Your task to perform on an android device: Search for pizza restaurants on Maps Image 0: 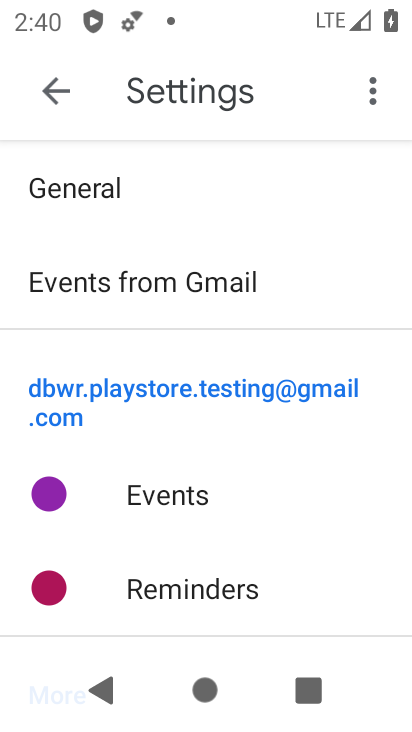
Step 0: press home button
Your task to perform on an android device: Search for pizza restaurants on Maps Image 1: 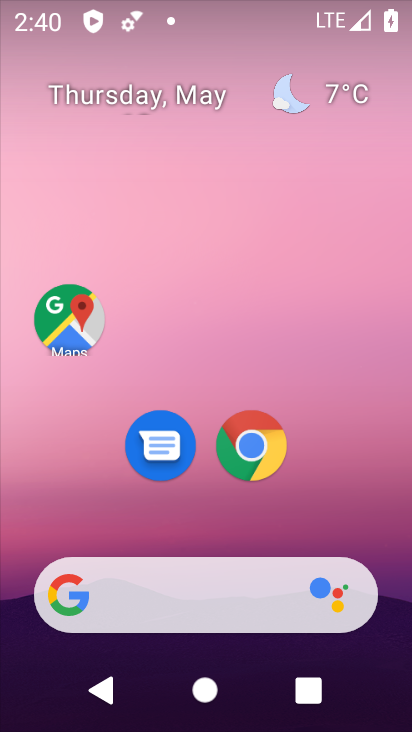
Step 1: click (72, 328)
Your task to perform on an android device: Search for pizza restaurants on Maps Image 2: 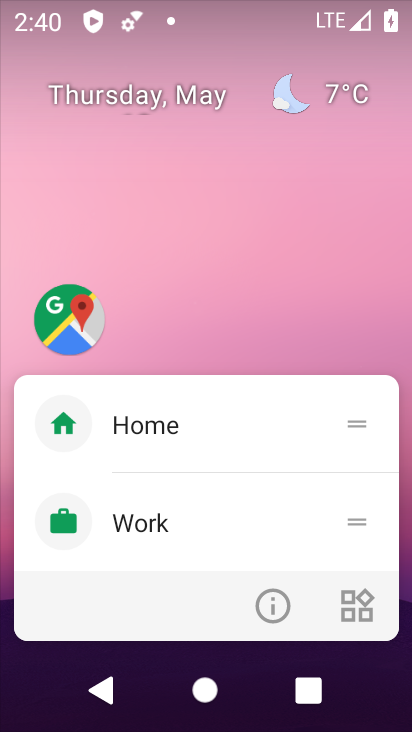
Step 2: click (67, 326)
Your task to perform on an android device: Search for pizza restaurants on Maps Image 3: 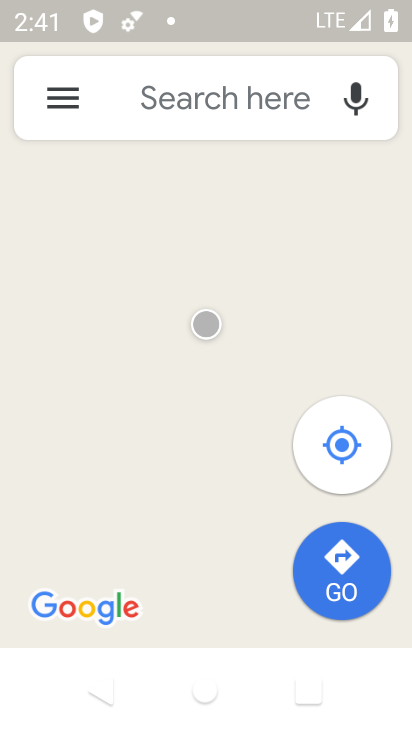
Step 3: click (145, 100)
Your task to perform on an android device: Search for pizza restaurants on Maps Image 4: 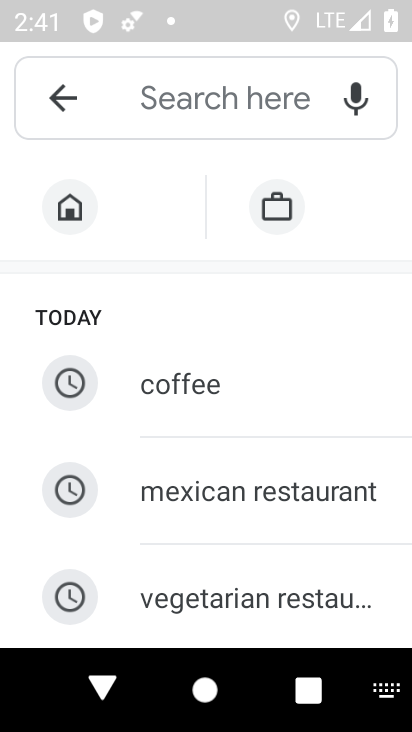
Step 4: type "pizza restaurant"
Your task to perform on an android device: Search for pizza restaurants on Maps Image 5: 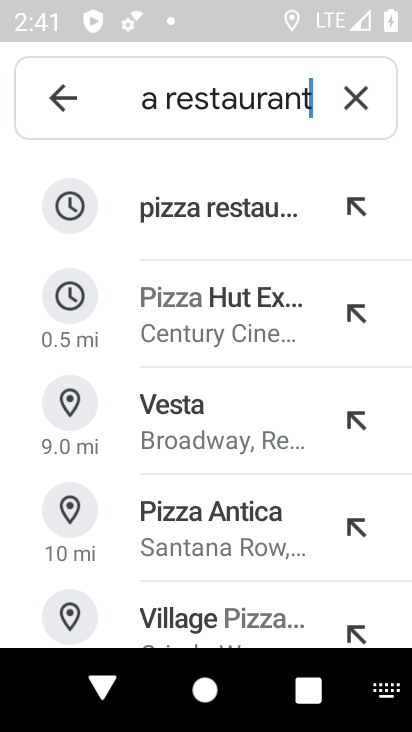
Step 5: click (209, 209)
Your task to perform on an android device: Search for pizza restaurants on Maps Image 6: 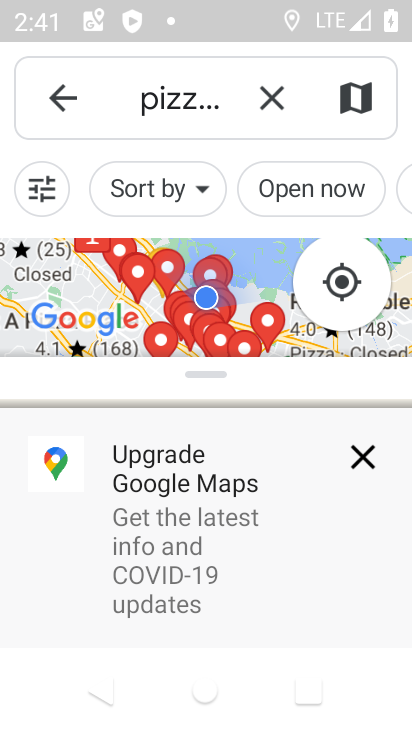
Step 6: click (368, 458)
Your task to perform on an android device: Search for pizza restaurants on Maps Image 7: 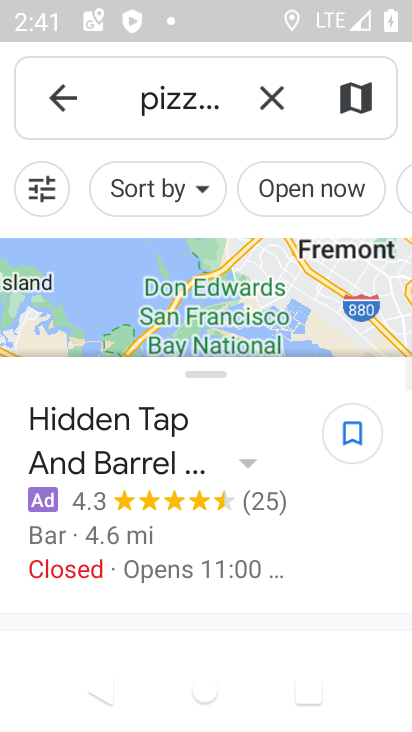
Step 7: task complete